Your task to perform on an android device: Open my contact list Image 0: 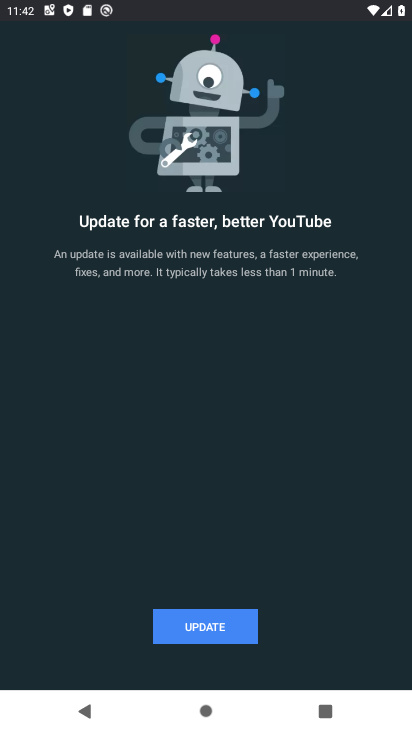
Step 0: press home button
Your task to perform on an android device: Open my contact list Image 1: 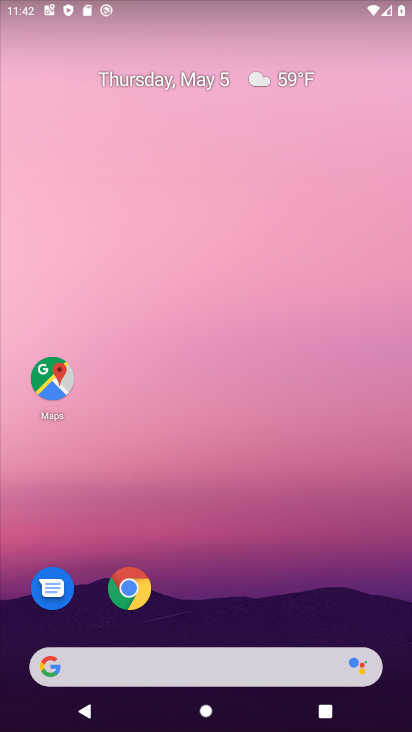
Step 1: drag from (286, 492) to (297, 43)
Your task to perform on an android device: Open my contact list Image 2: 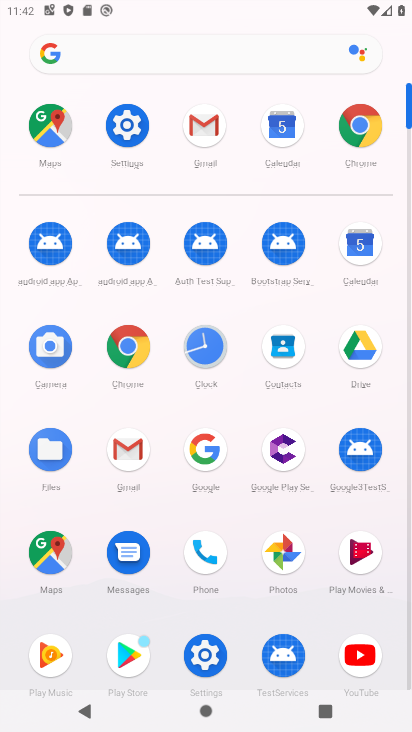
Step 2: click (282, 348)
Your task to perform on an android device: Open my contact list Image 3: 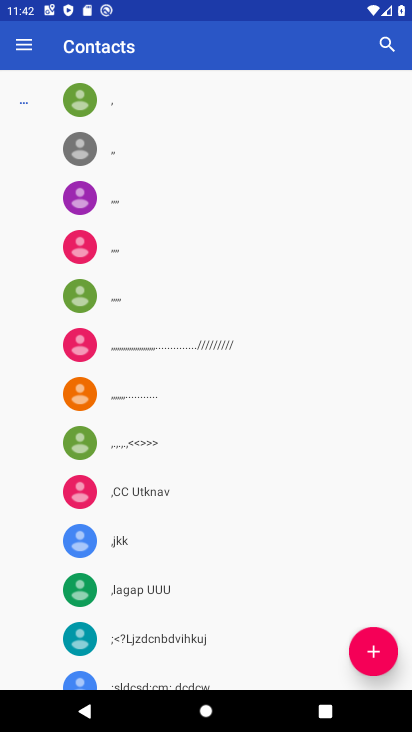
Step 3: task complete